Your task to perform on an android device: make emails show in primary in the gmail app Image 0: 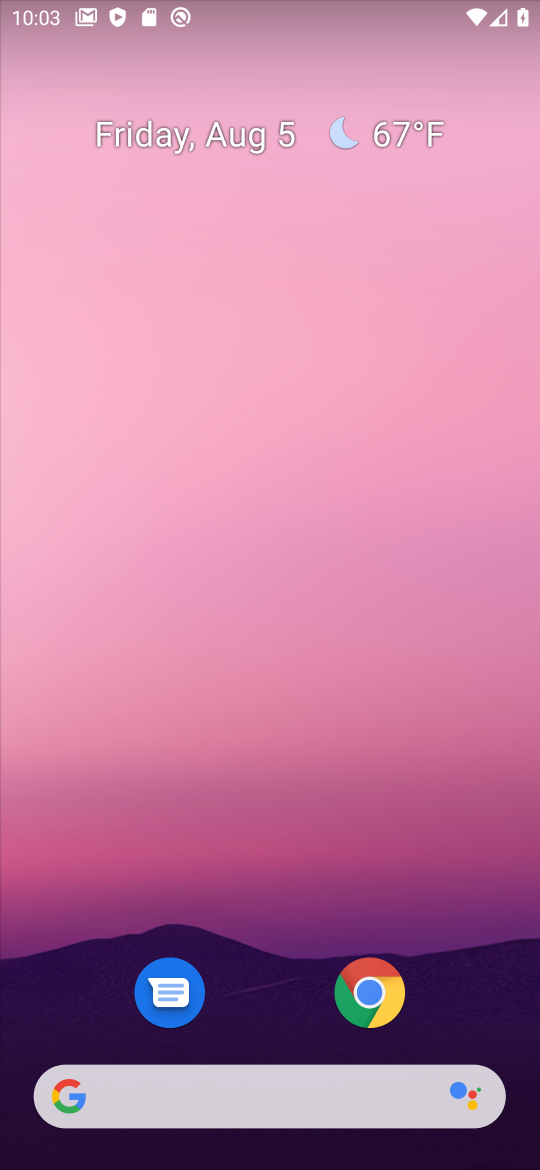
Step 0: drag from (116, 925) to (73, 59)
Your task to perform on an android device: make emails show in primary in the gmail app Image 1: 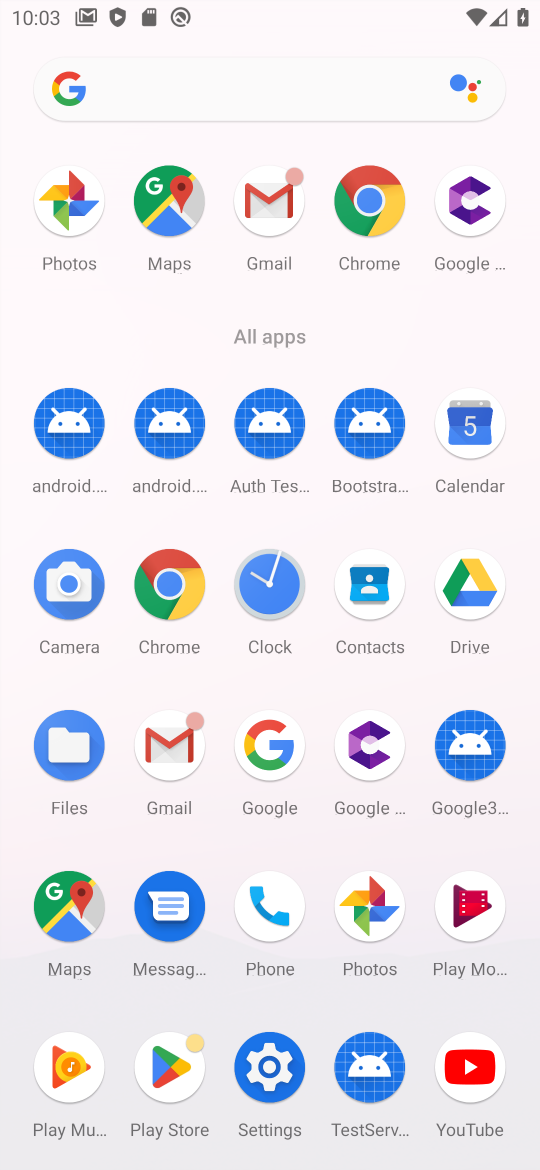
Step 1: click (259, 214)
Your task to perform on an android device: make emails show in primary in the gmail app Image 2: 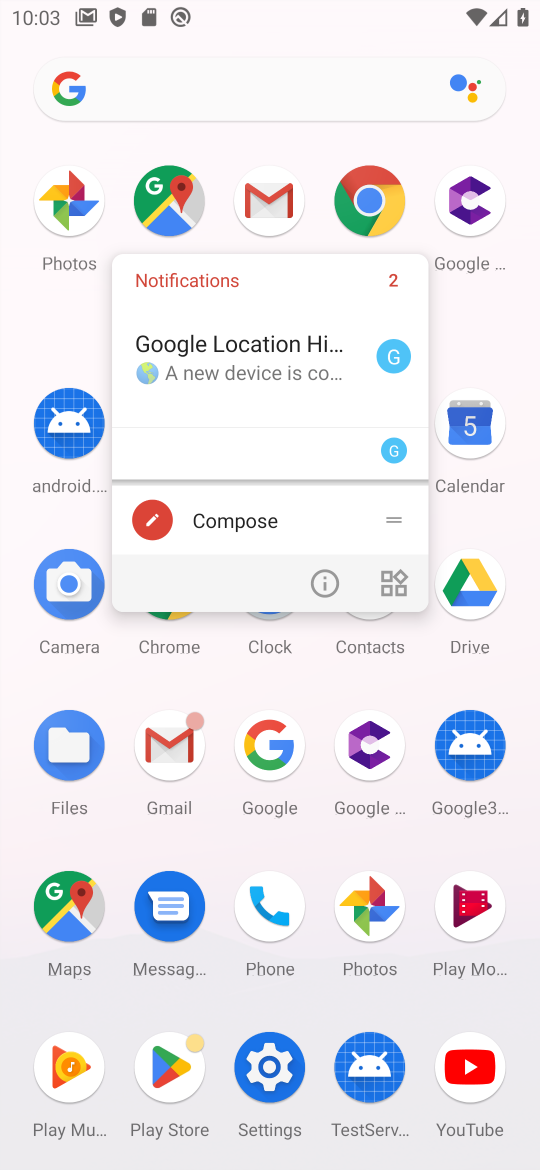
Step 2: click (268, 197)
Your task to perform on an android device: make emails show in primary in the gmail app Image 3: 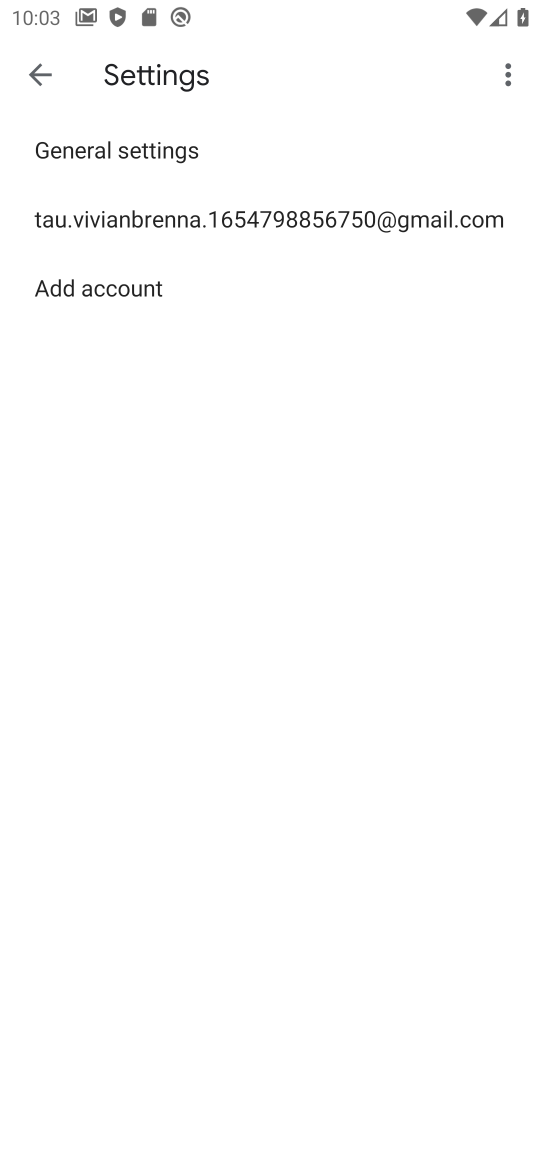
Step 3: click (97, 223)
Your task to perform on an android device: make emails show in primary in the gmail app Image 4: 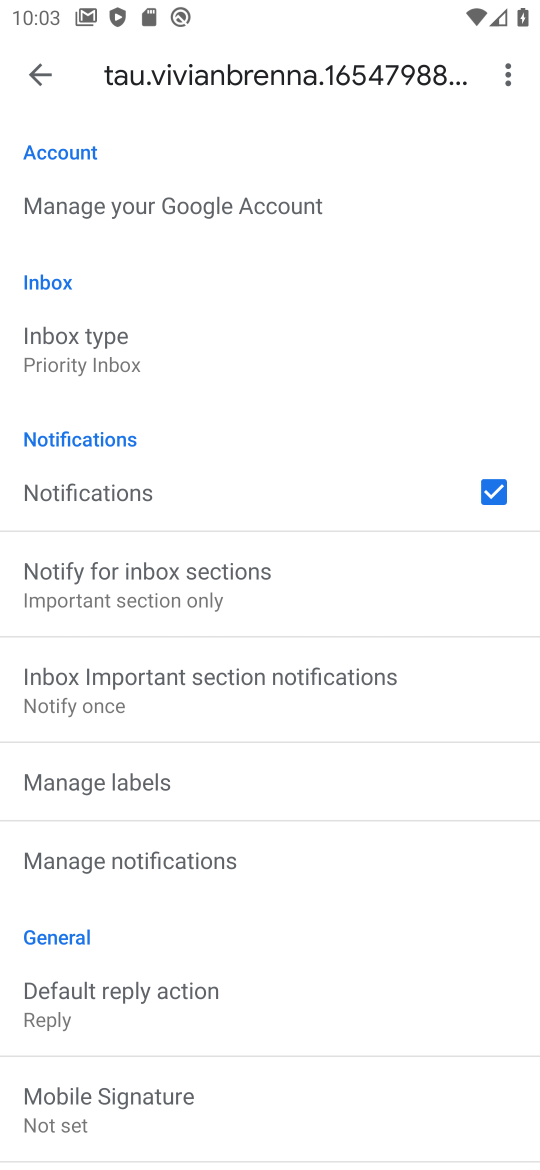
Step 4: click (89, 346)
Your task to perform on an android device: make emails show in primary in the gmail app Image 5: 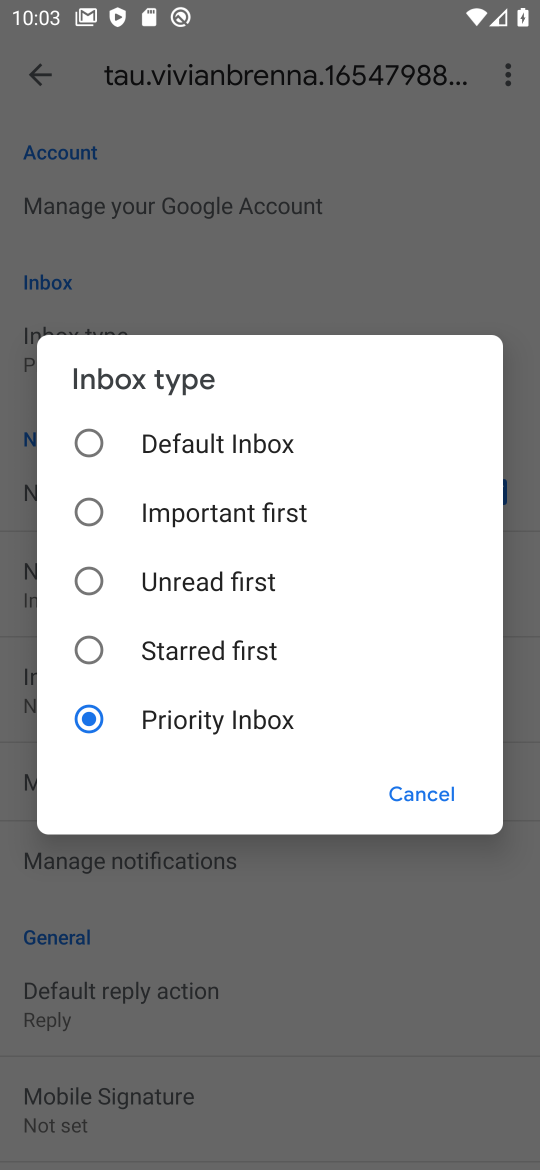
Step 5: click (136, 445)
Your task to perform on an android device: make emails show in primary in the gmail app Image 6: 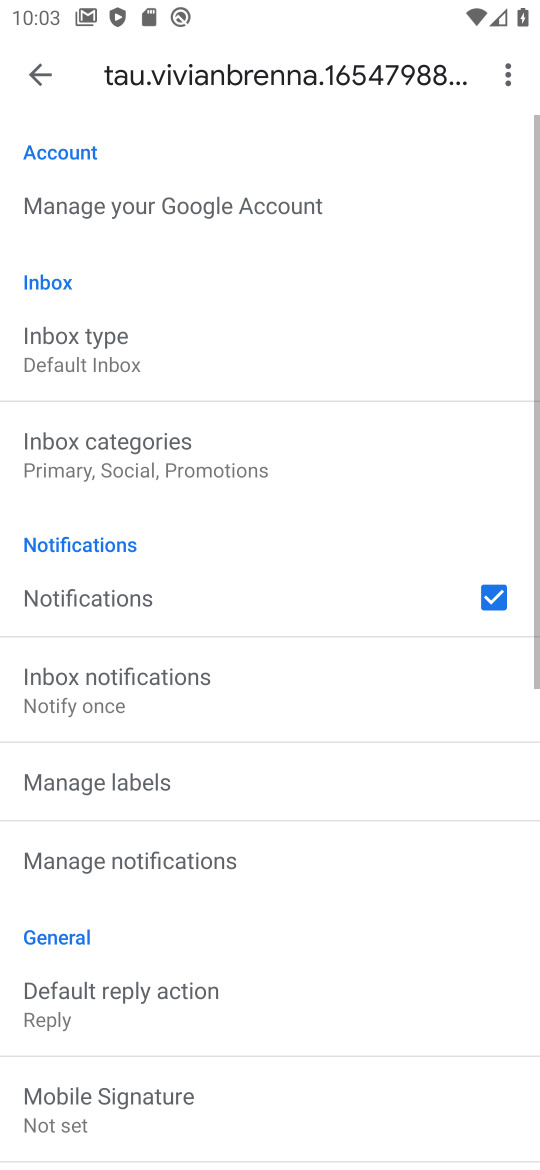
Step 6: task complete